Your task to perform on an android device: Search for "razer kraken" on costco.com, select the first entry, and add it to the cart. Image 0: 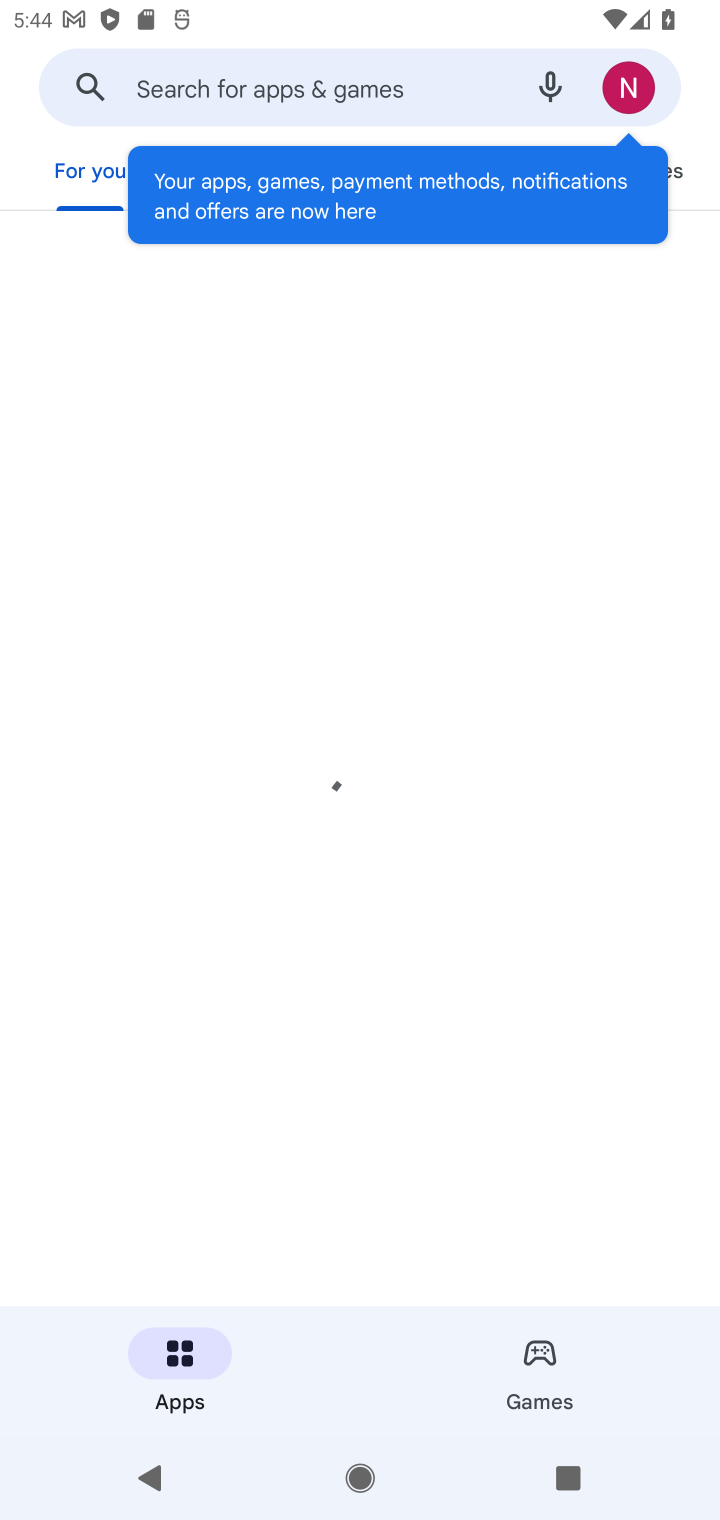
Step 0: press home button
Your task to perform on an android device: Search for "razer kraken" on costco.com, select the first entry, and add it to the cart. Image 1: 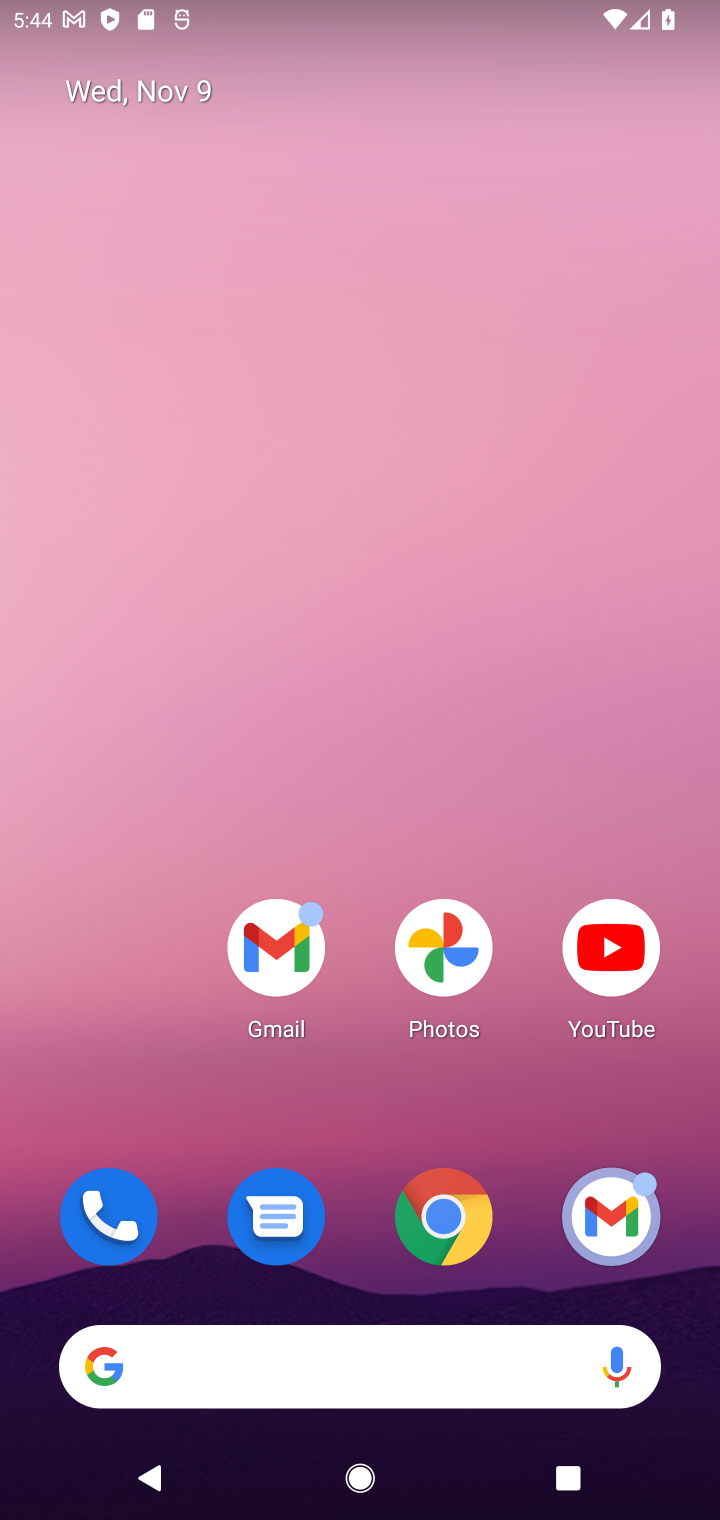
Step 1: drag from (356, 1282) to (317, 282)
Your task to perform on an android device: Search for "razer kraken" on costco.com, select the first entry, and add it to the cart. Image 2: 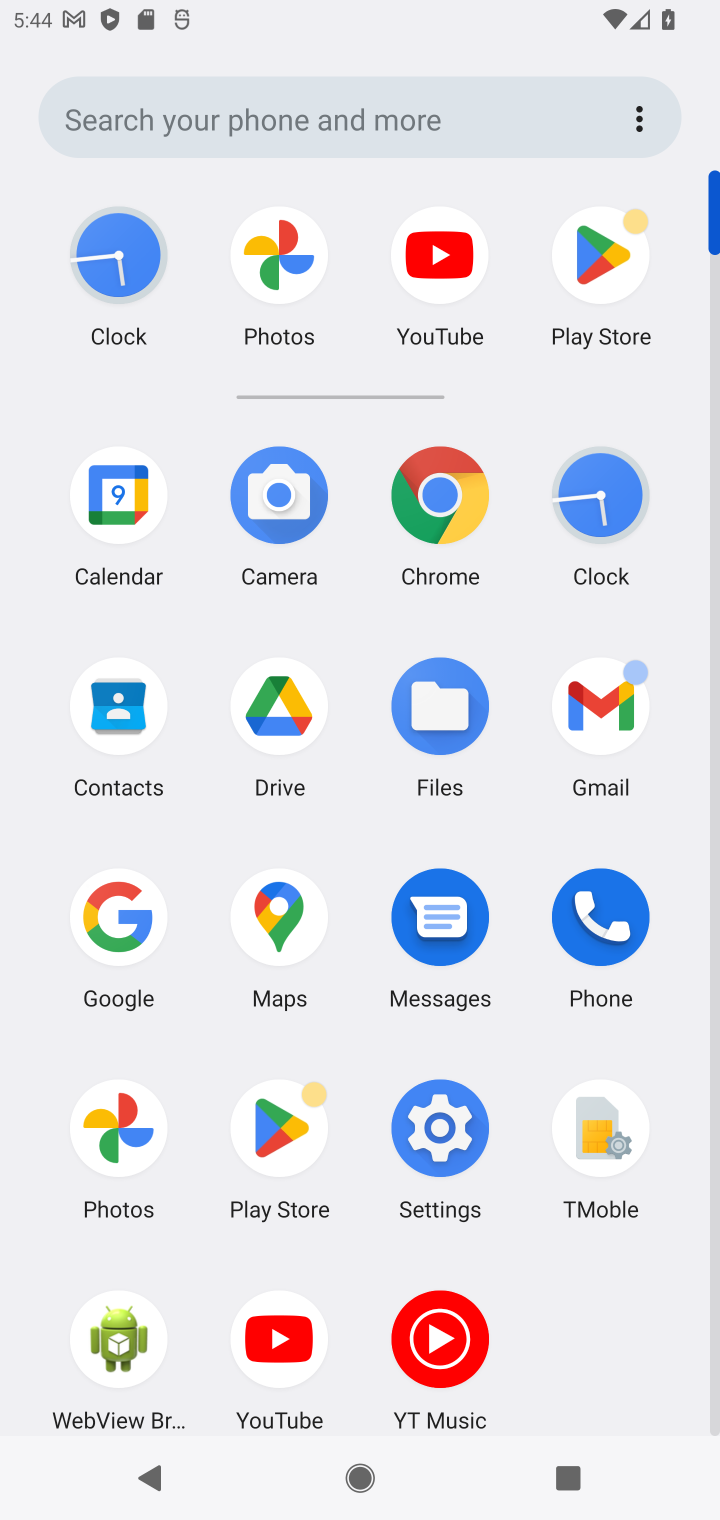
Step 2: click (438, 498)
Your task to perform on an android device: Search for "razer kraken" on costco.com, select the first entry, and add it to the cart. Image 3: 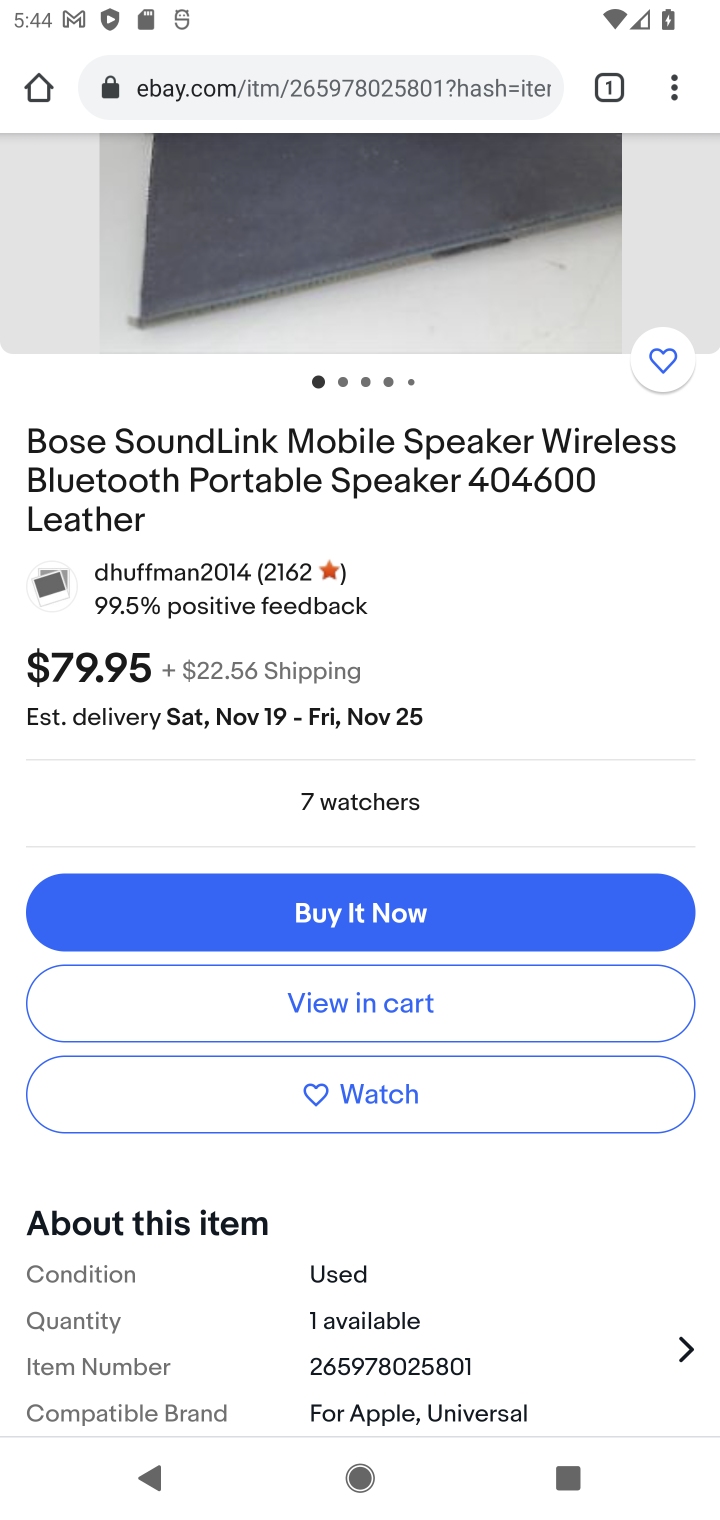
Step 3: click (296, 75)
Your task to perform on an android device: Search for "razer kraken" on costco.com, select the first entry, and add it to the cart. Image 4: 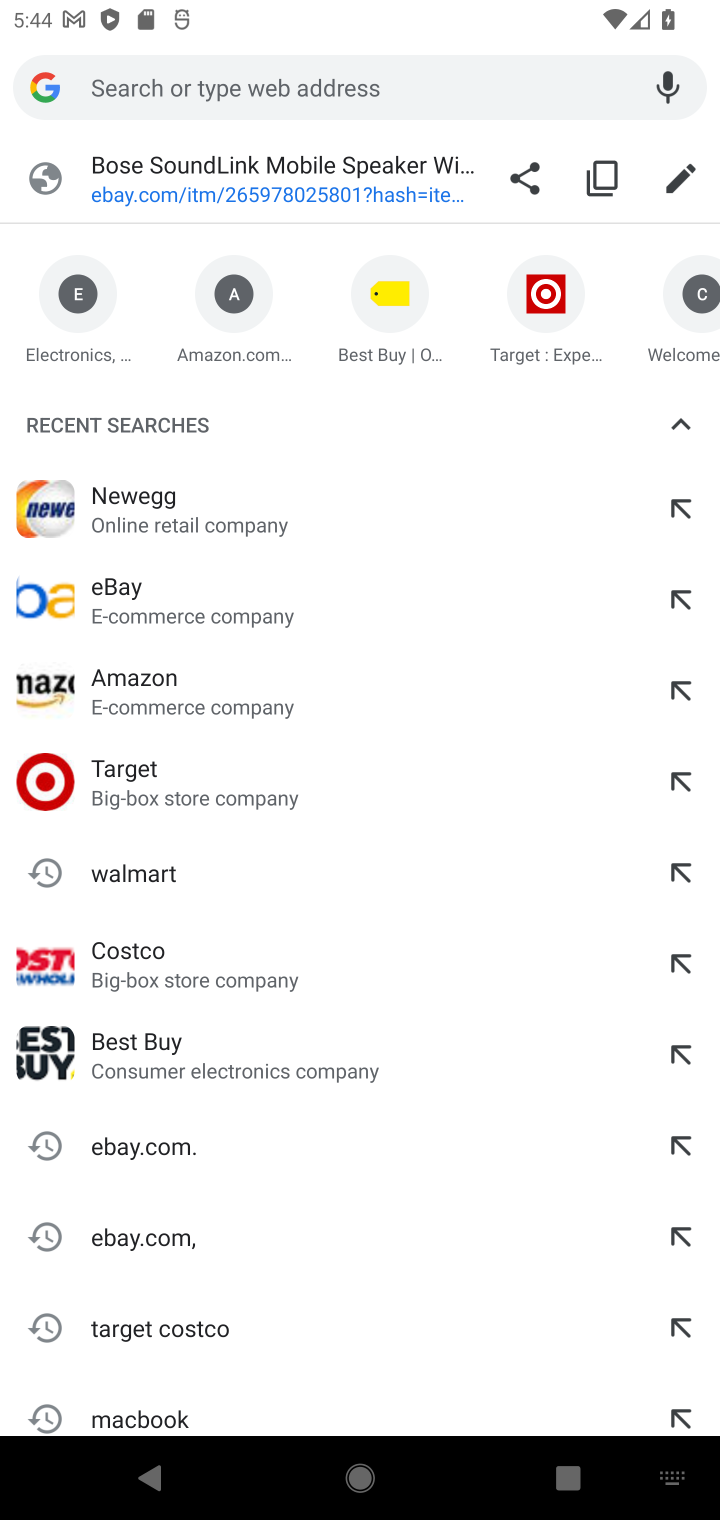
Step 4: type "costco.com"
Your task to perform on an android device: Search for "razer kraken" on costco.com, select the first entry, and add it to the cart. Image 5: 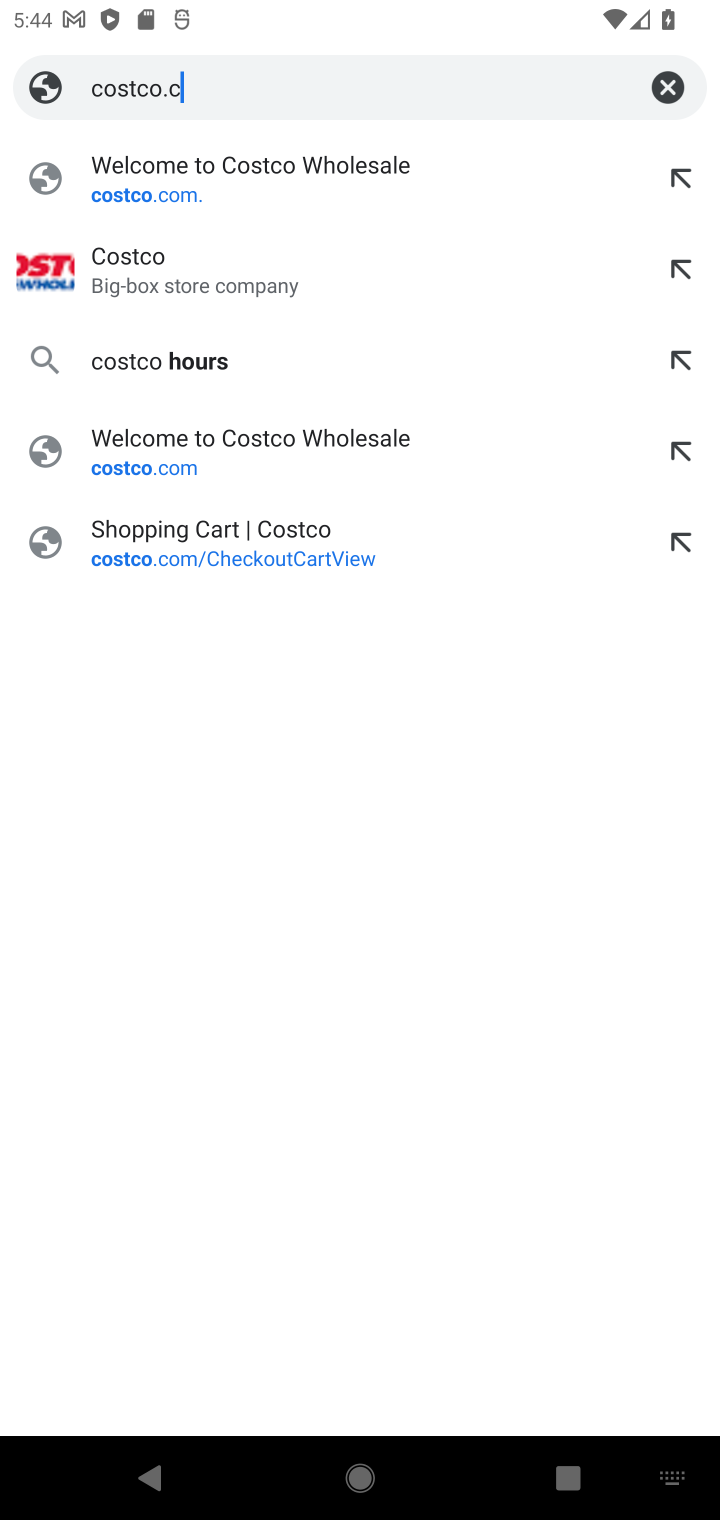
Step 5: press enter
Your task to perform on an android device: Search for "razer kraken" on costco.com, select the first entry, and add it to the cart. Image 6: 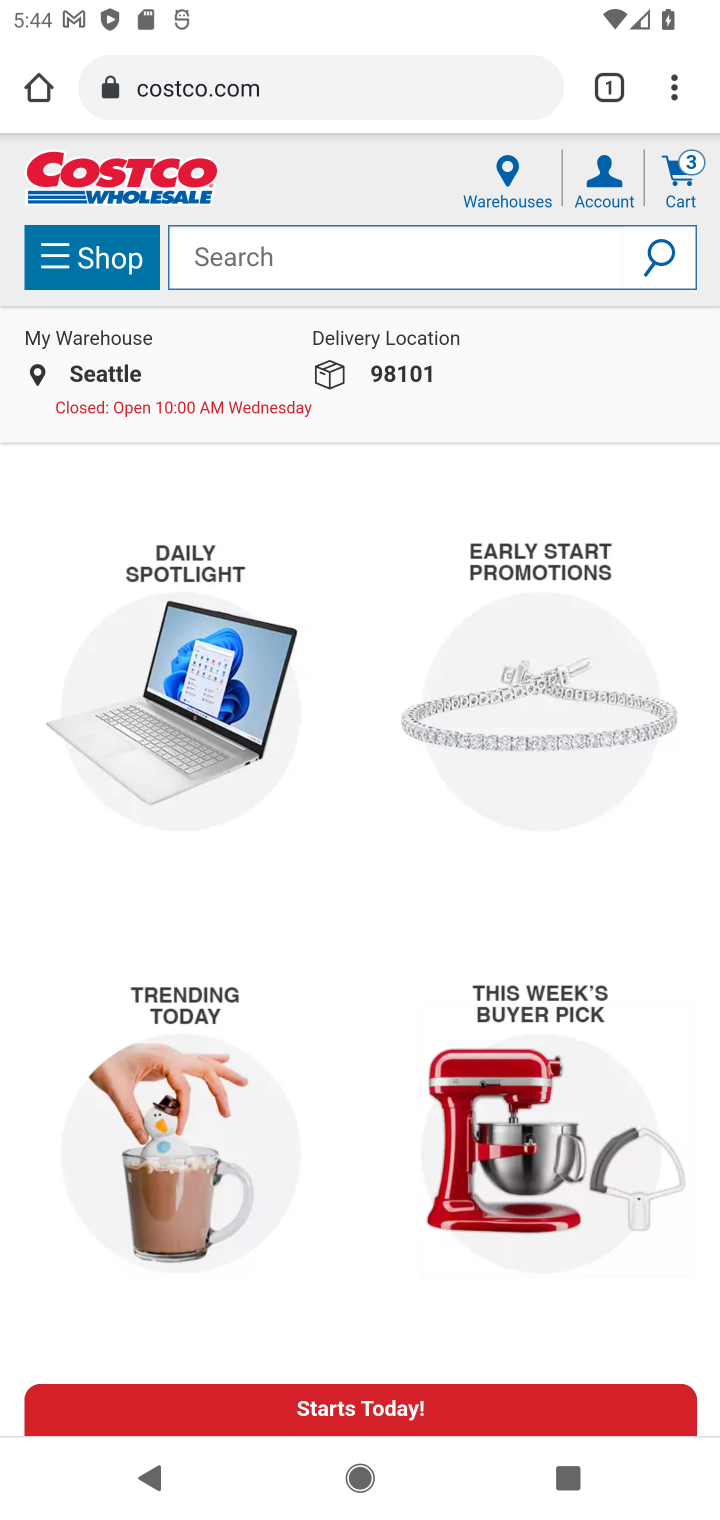
Step 6: click (316, 243)
Your task to perform on an android device: Search for "razer kraken" on costco.com, select the first entry, and add it to the cart. Image 7: 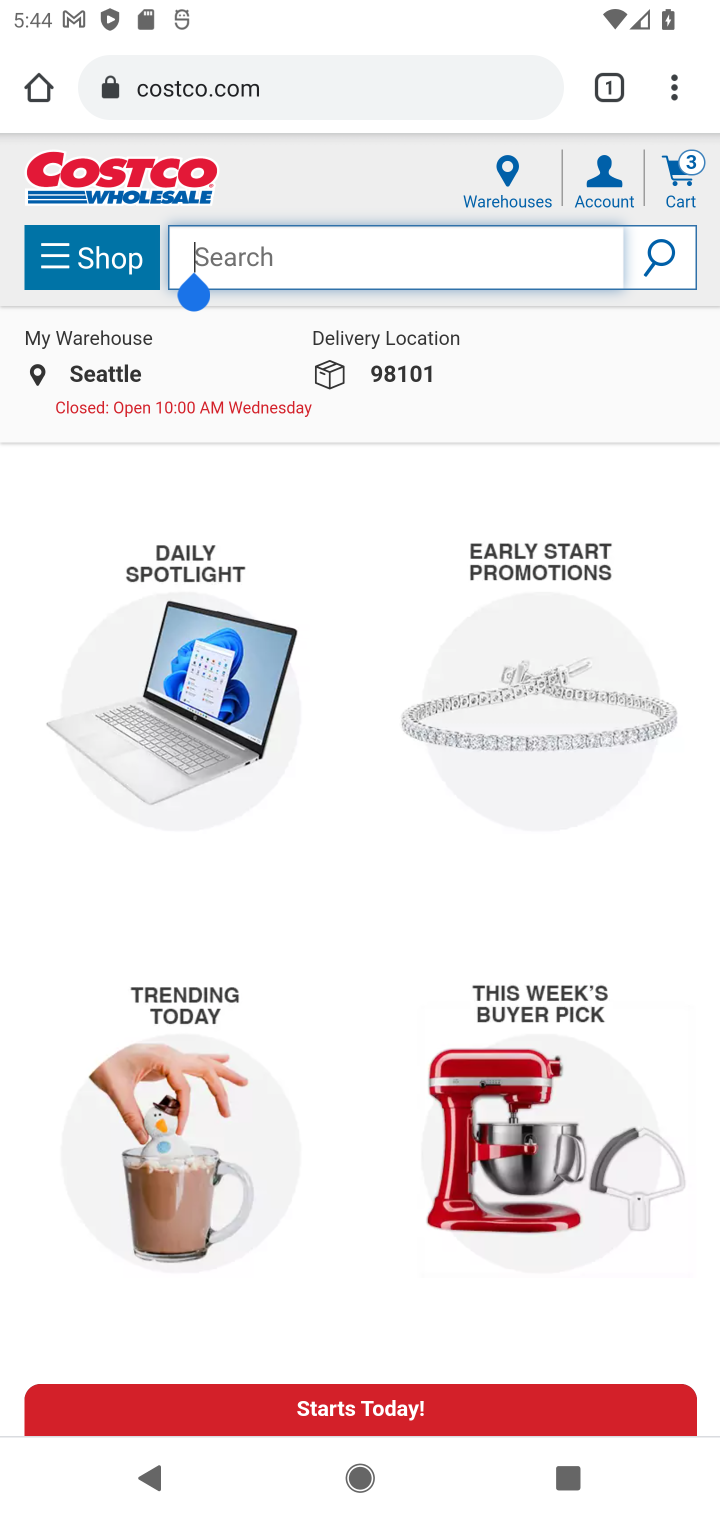
Step 7: type "razer kraken"
Your task to perform on an android device: Search for "razer kraken" on costco.com, select the first entry, and add it to the cart. Image 8: 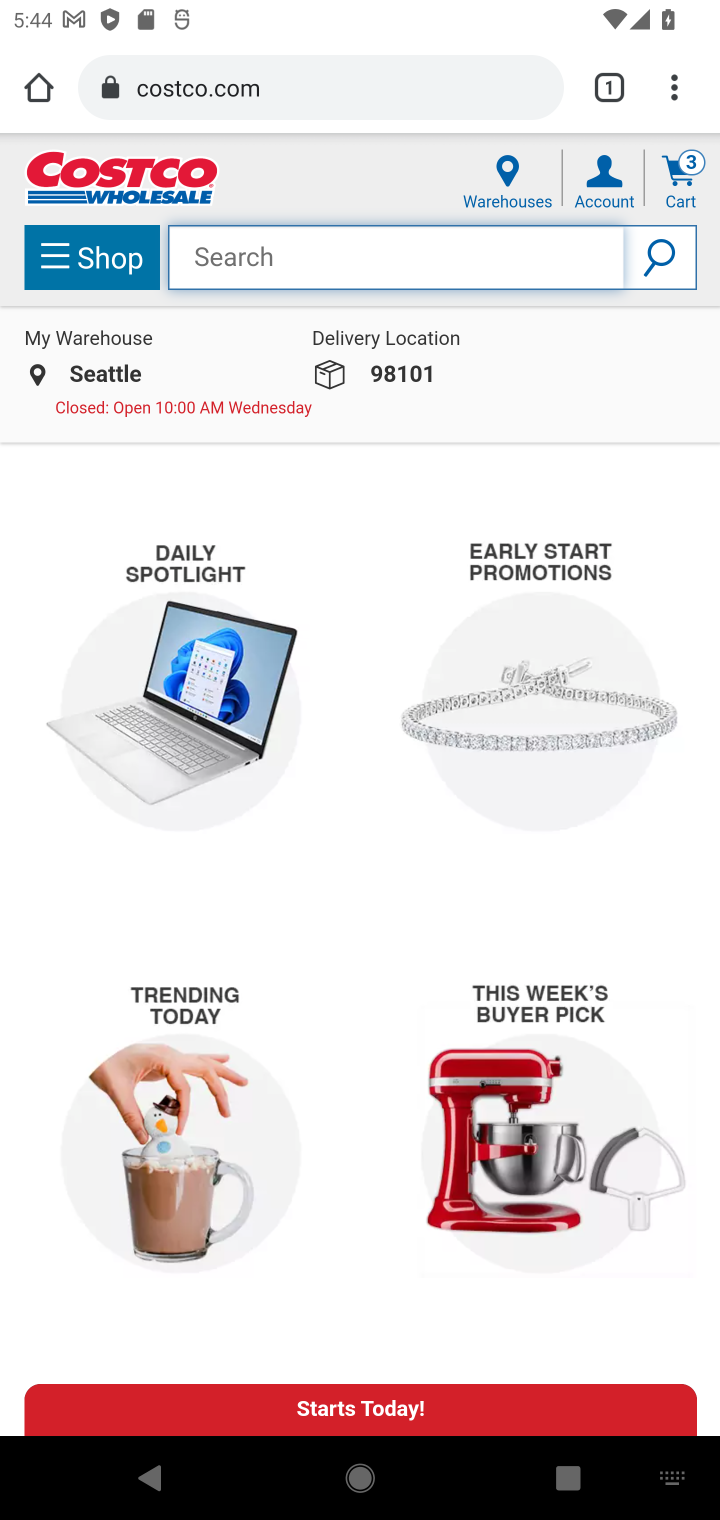
Step 8: press enter
Your task to perform on an android device: Search for "razer kraken" on costco.com, select the first entry, and add it to the cart. Image 9: 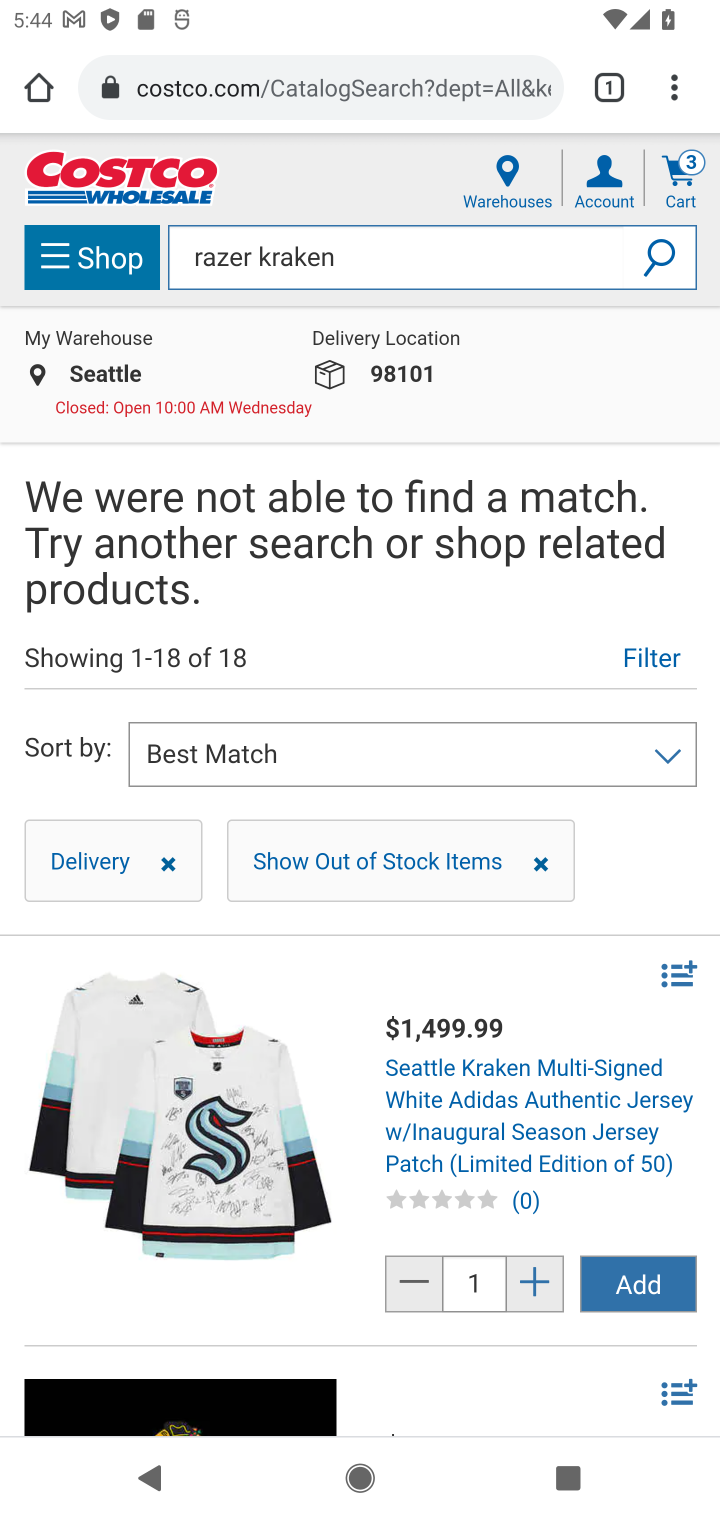
Step 9: task complete